Your task to perform on an android device: turn off notifications in google photos Image 0: 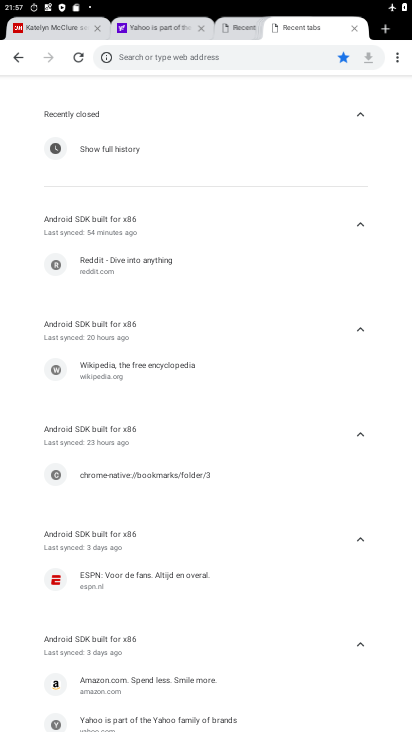
Step 0: press home button
Your task to perform on an android device: turn off notifications in google photos Image 1: 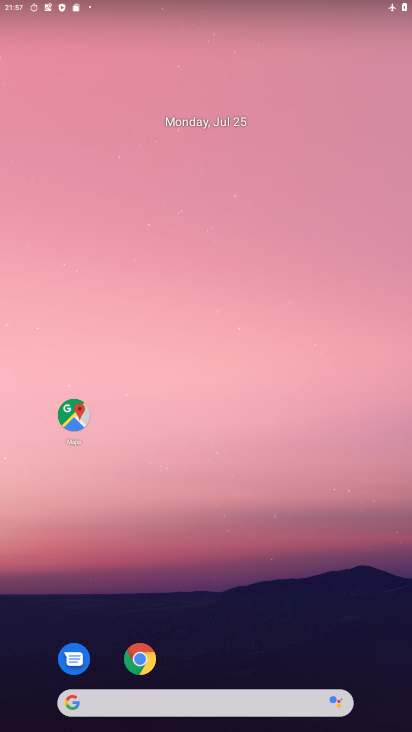
Step 1: drag from (223, 660) to (233, 192)
Your task to perform on an android device: turn off notifications in google photos Image 2: 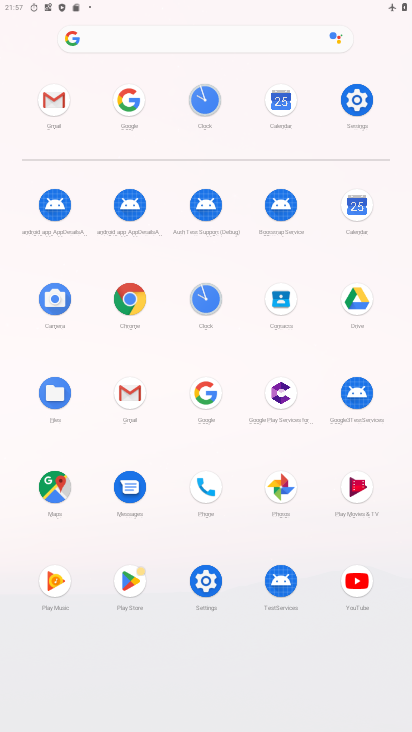
Step 2: click (274, 492)
Your task to perform on an android device: turn off notifications in google photos Image 3: 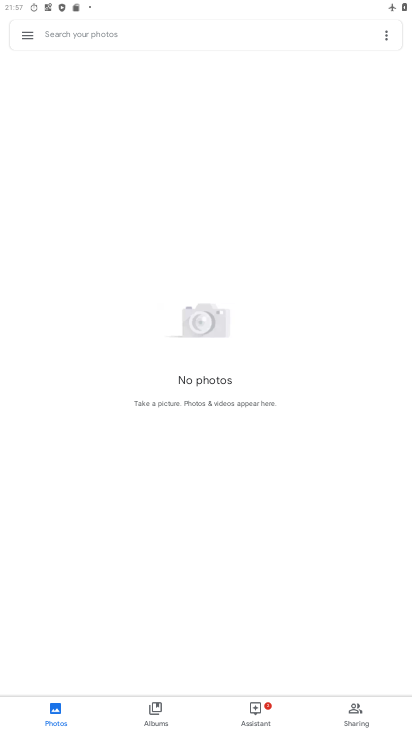
Step 3: click (19, 35)
Your task to perform on an android device: turn off notifications in google photos Image 4: 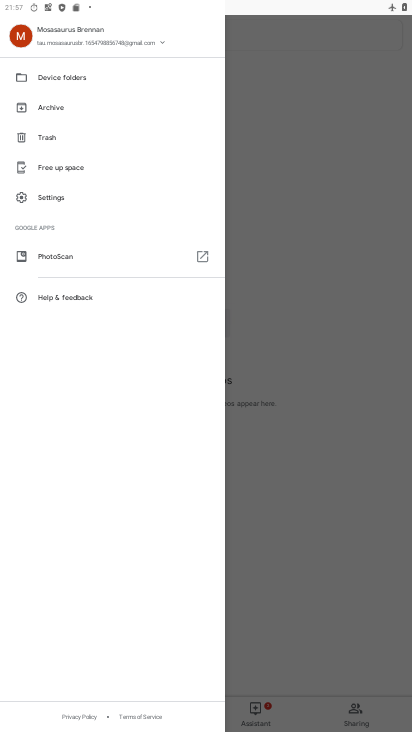
Step 4: click (37, 198)
Your task to perform on an android device: turn off notifications in google photos Image 5: 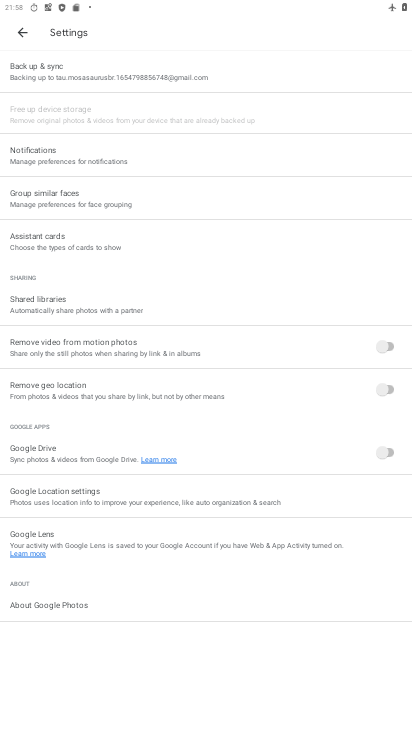
Step 5: click (76, 162)
Your task to perform on an android device: turn off notifications in google photos Image 6: 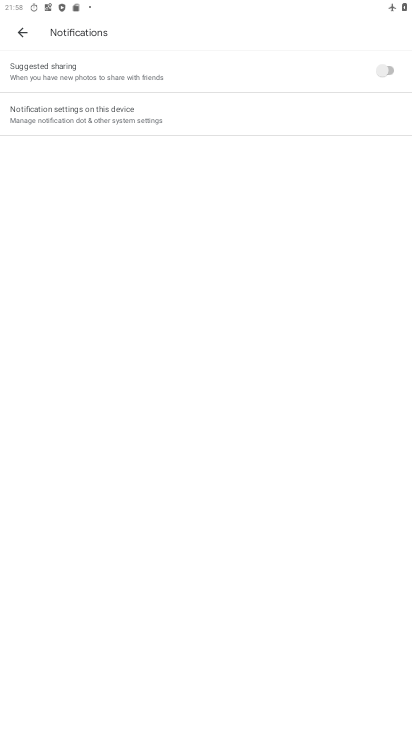
Step 6: click (174, 128)
Your task to perform on an android device: turn off notifications in google photos Image 7: 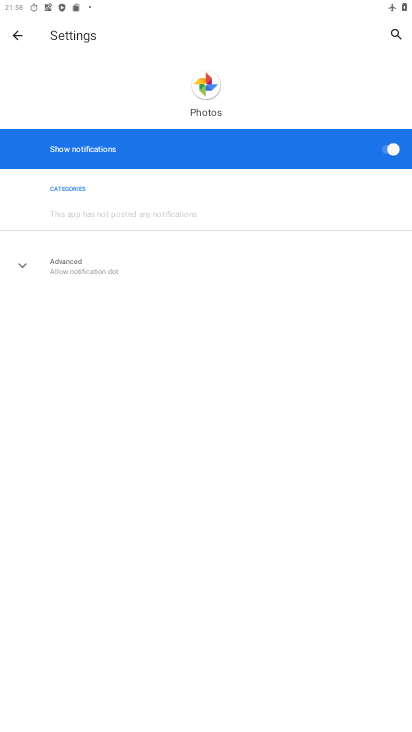
Step 7: click (380, 147)
Your task to perform on an android device: turn off notifications in google photos Image 8: 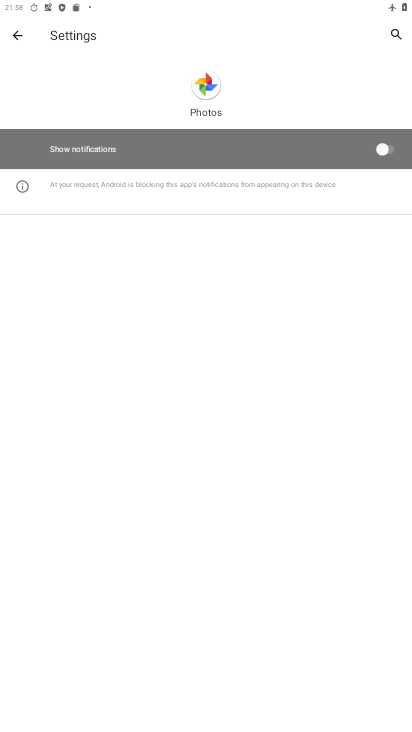
Step 8: task complete